Your task to perform on an android device: change the clock display to analog Image 0: 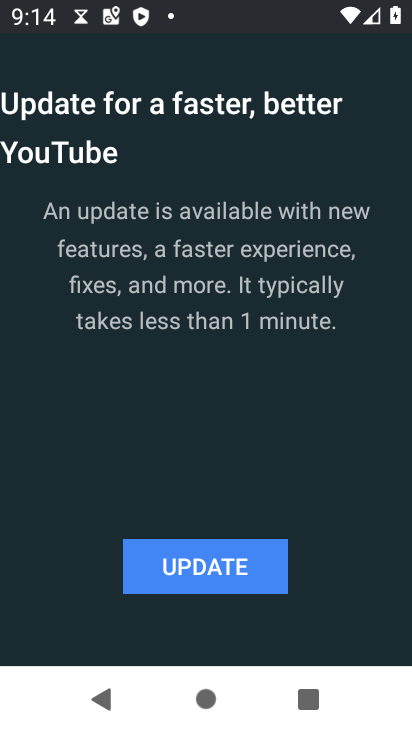
Step 0: drag from (239, 504) to (200, 504)
Your task to perform on an android device: change the clock display to analog Image 1: 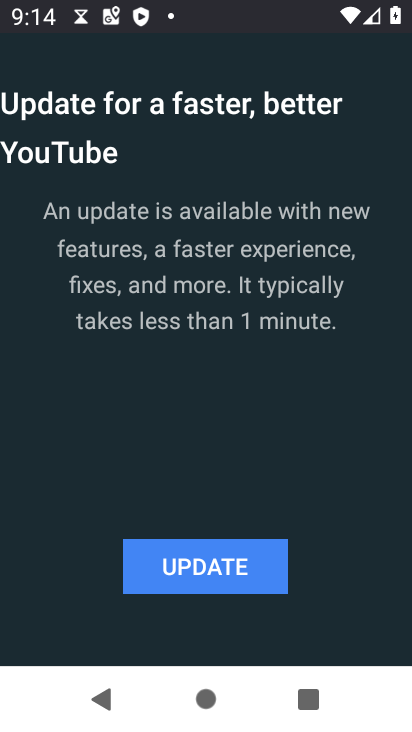
Step 1: press back button
Your task to perform on an android device: change the clock display to analog Image 2: 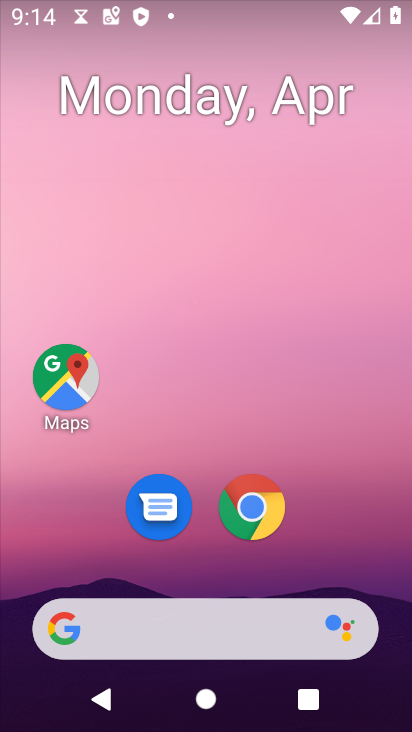
Step 2: drag from (252, 575) to (211, 116)
Your task to perform on an android device: change the clock display to analog Image 3: 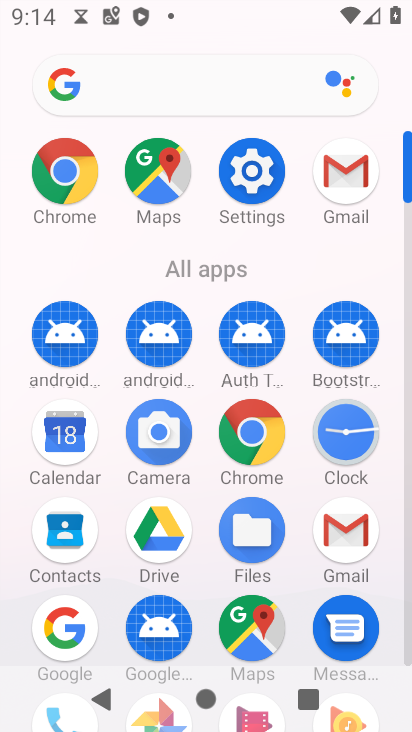
Step 3: click (334, 425)
Your task to perform on an android device: change the clock display to analog Image 4: 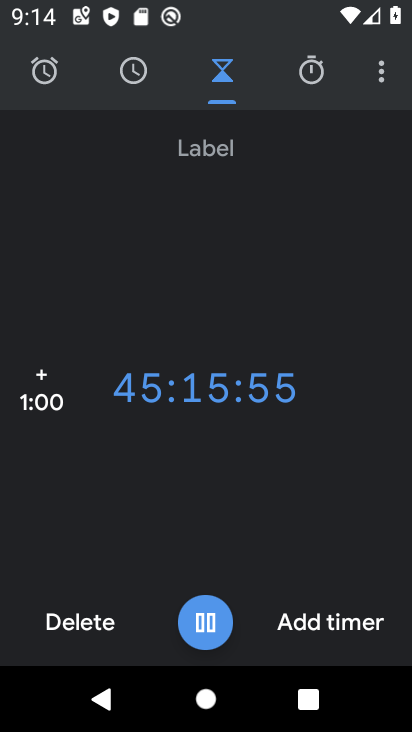
Step 4: click (383, 73)
Your task to perform on an android device: change the clock display to analog Image 5: 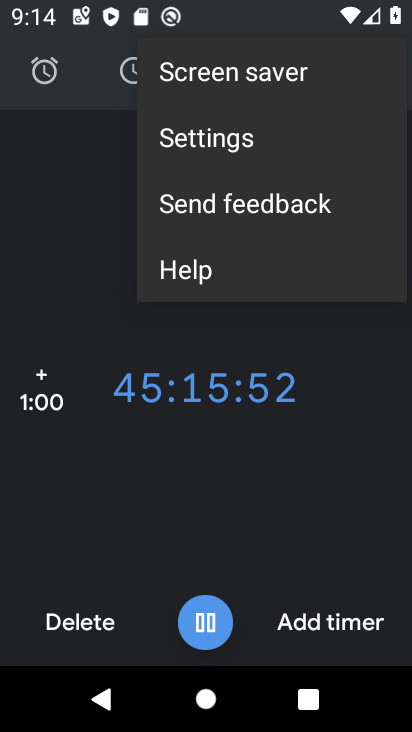
Step 5: click (286, 148)
Your task to perform on an android device: change the clock display to analog Image 6: 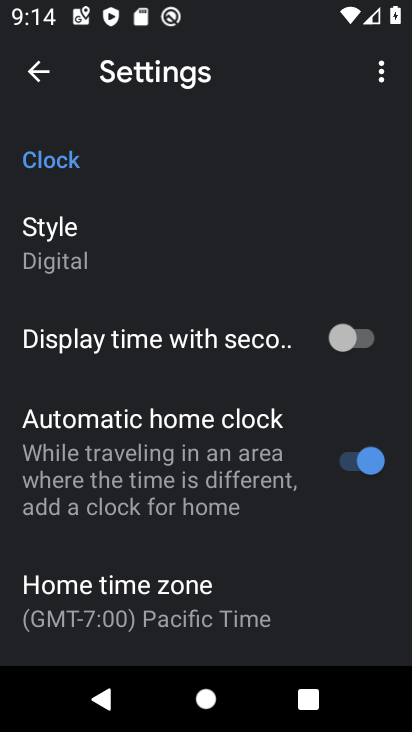
Step 6: click (126, 239)
Your task to perform on an android device: change the clock display to analog Image 7: 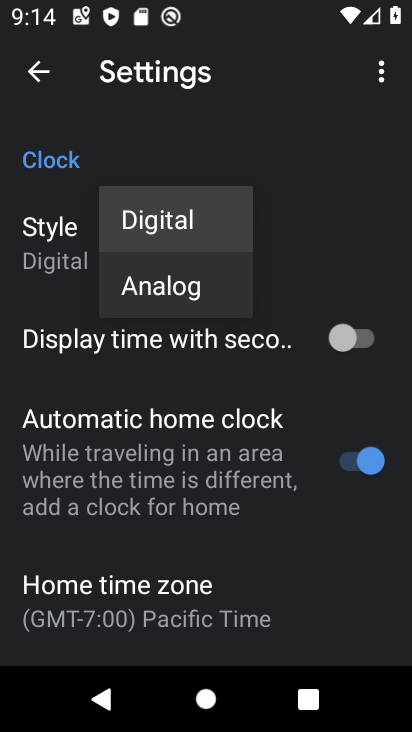
Step 7: click (127, 277)
Your task to perform on an android device: change the clock display to analog Image 8: 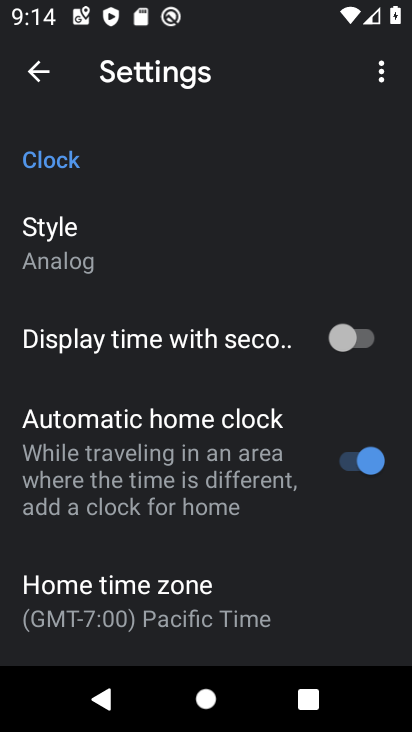
Step 8: task complete